Your task to perform on an android device: toggle location history Image 0: 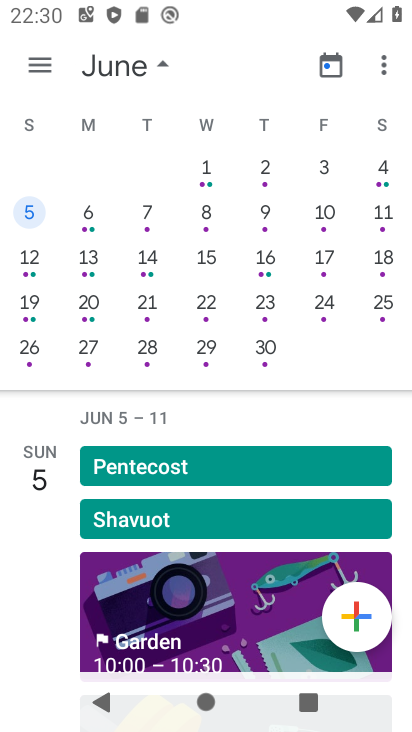
Step 0: press home button
Your task to perform on an android device: toggle location history Image 1: 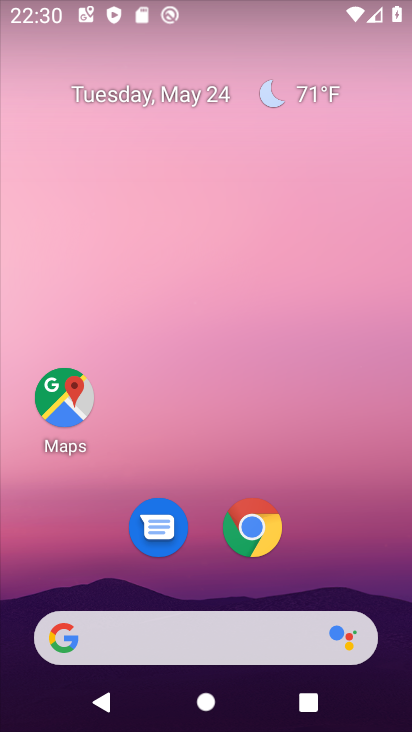
Step 1: drag from (193, 575) to (178, 42)
Your task to perform on an android device: toggle location history Image 2: 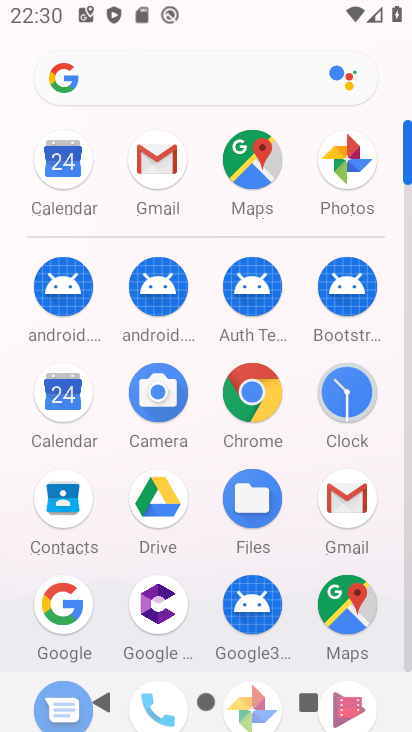
Step 2: drag from (205, 570) to (197, 176)
Your task to perform on an android device: toggle location history Image 3: 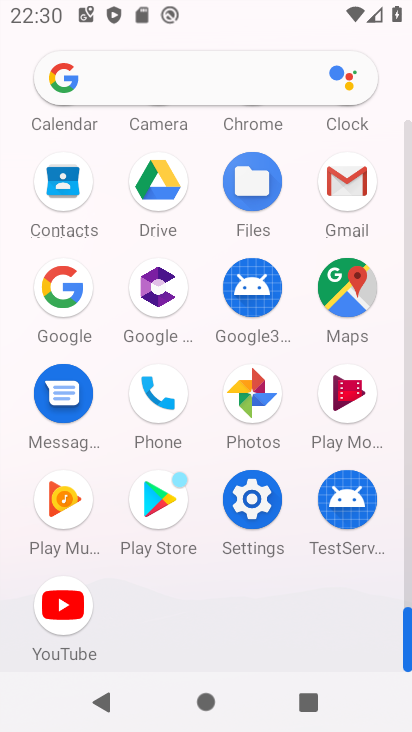
Step 3: click (240, 510)
Your task to perform on an android device: toggle location history Image 4: 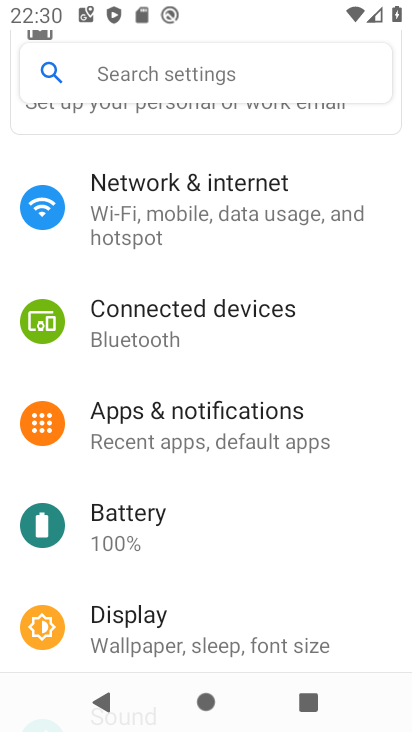
Step 4: drag from (183, 556) to (178, 242)
Your task to perform on an android device: toggle location history Image 5: 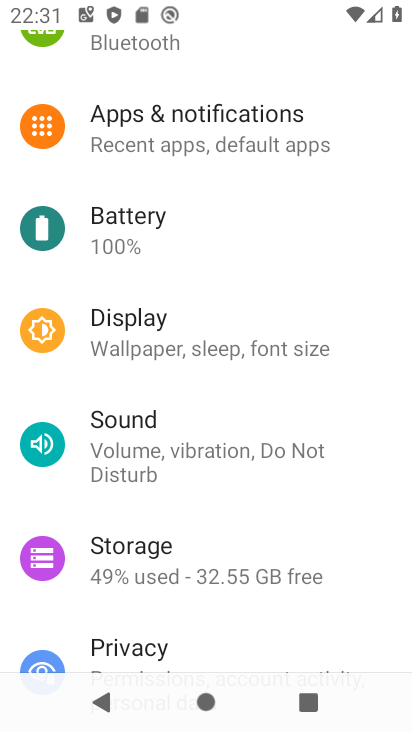
Step 5: drag from (208, 612) to (205, 313)
Your task to perform on an android device: toggle location history Image 6: 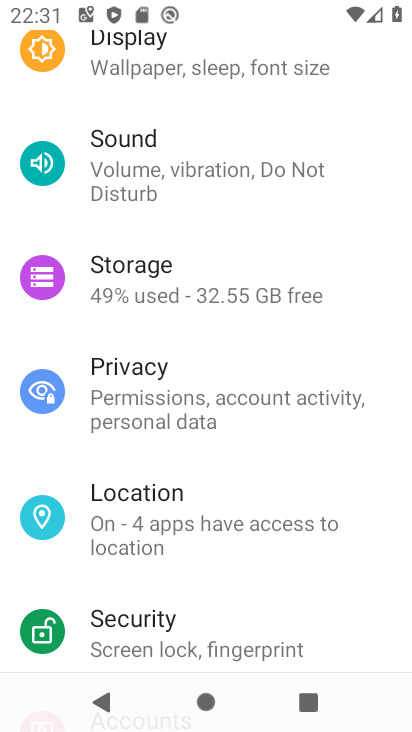
Step 6: drag from (225, 610) to (227, 322)
Your task to perform on an android device: toggle location history Image 7: 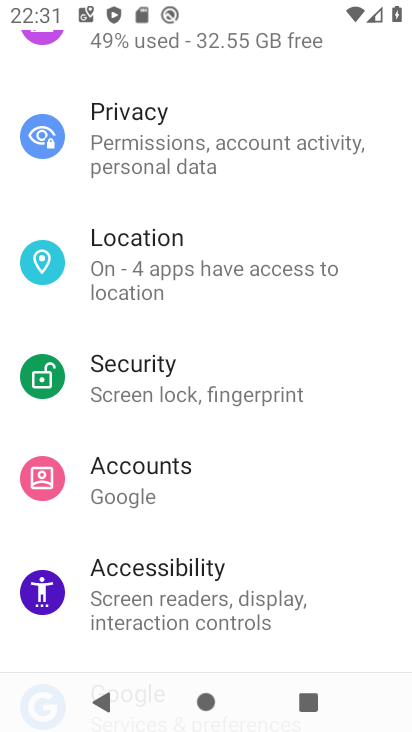
Step 7: drag from (181, 597) to (176, 451)
Your task to perform on an android device: toggle location history Image 8: 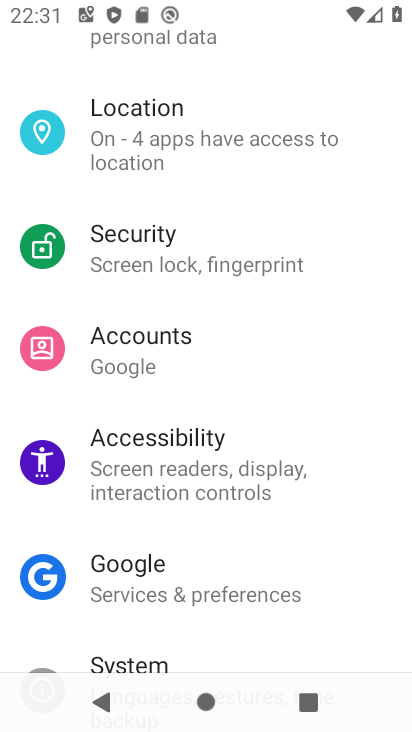
Step 8: click (159, 163)
Your task to perform on an android device: toggle location history Image 9: 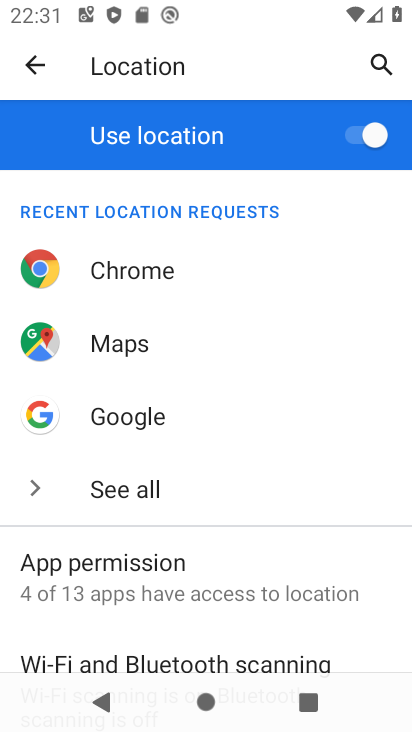
Step 9: drag from (233, 624) to (239, 317)
Your task to perform on an android device: toggle location history Image 10: 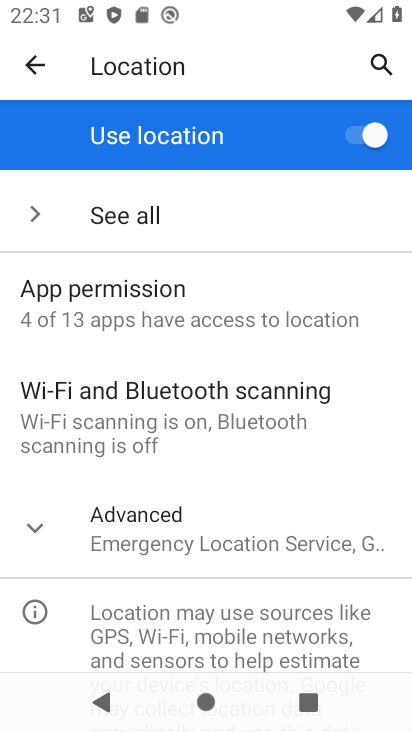
Step 10: click (199, 555)
Your task to perform on an android device: toggle location history Image 11: 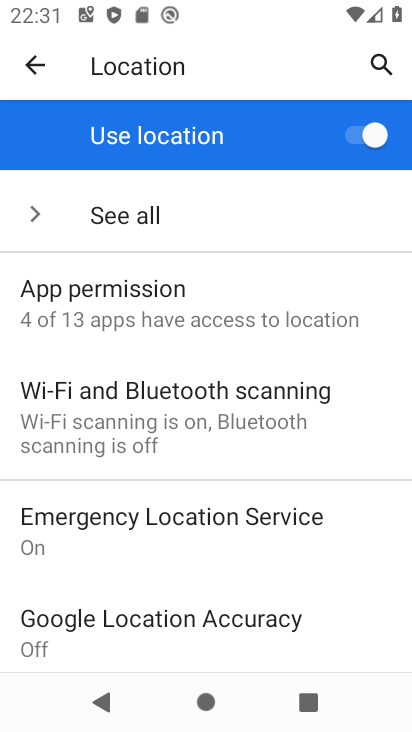
Step 11: drag from (232, 627) to (274, 338)
Your task to perform on an android device: toggle location history Image 12: 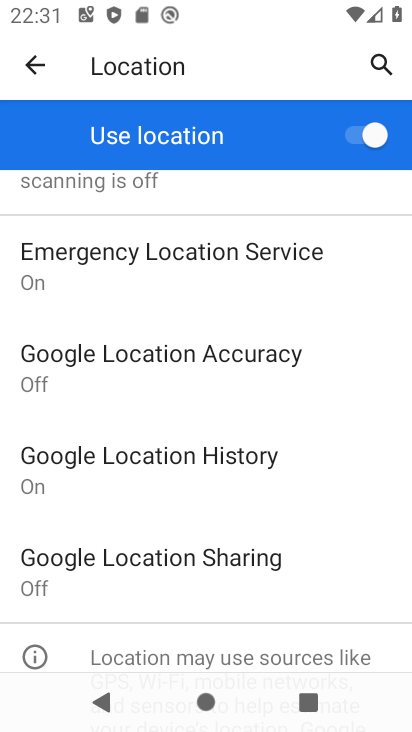
Step 12: click (198, 470)
Your task to perform on an android device: toggle location history Image 13: 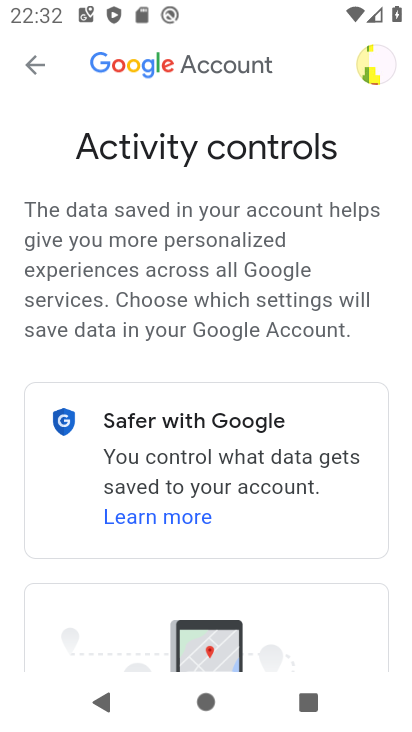
Step 13: drag from (282, 611) to (289, 211)
Your task to perform on an android device: toggle location history Image 14: 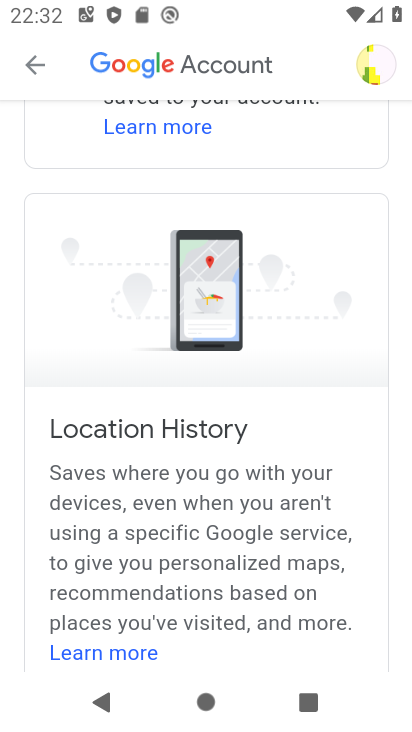
Step 14: drag from (328, 563) to (372, 120)
Your task to perform on an android device: toggle location history Image 15: 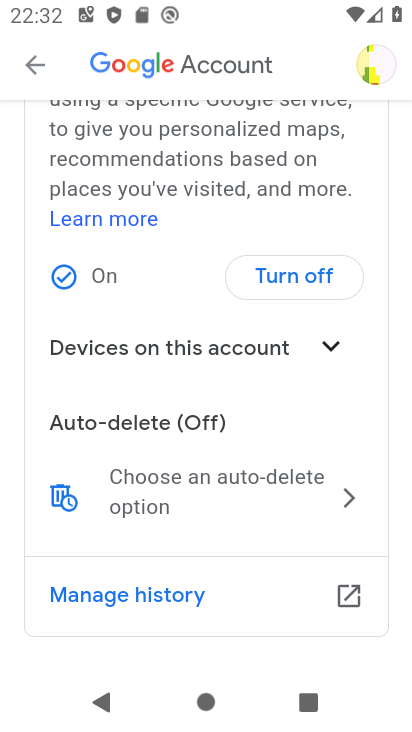
Step 15: click (293, 281)
Your task to perform on an android device: toggle location history Image 16: 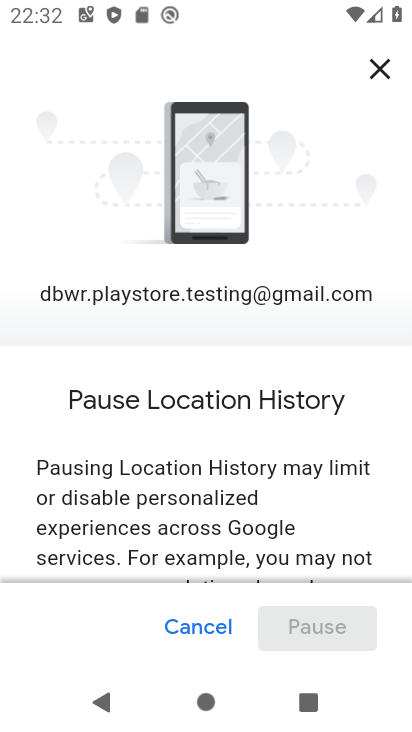
Step 16: drag from (323, 558) to (320, 102)
Your task to perform on an android device: toggle location history Image 17: 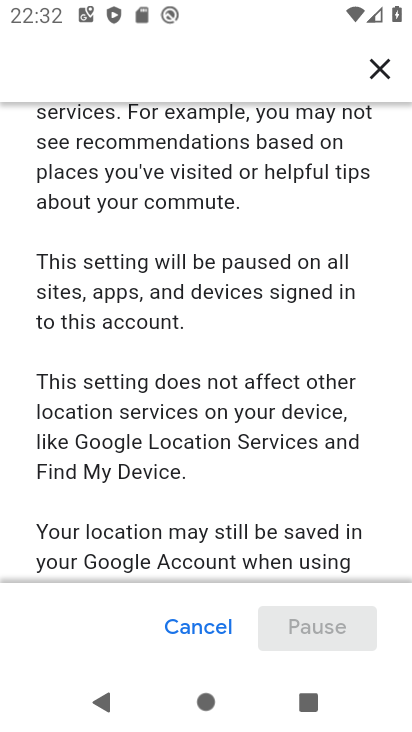
Step 17: drag from (244, 492) to (243, 14)
Your task to perform on an android device: toggle location history Image 18: 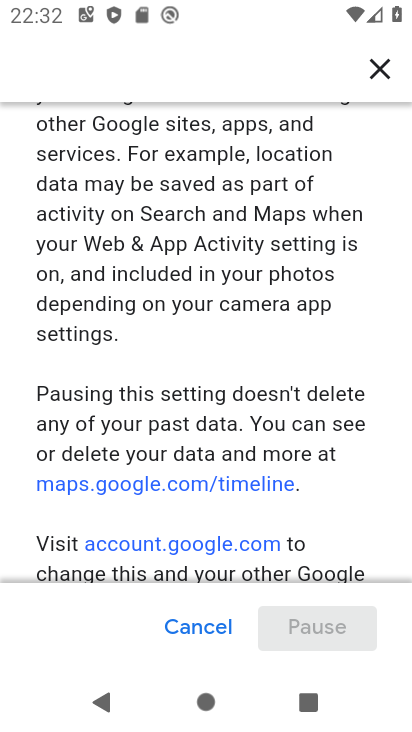
Step 18: drag from (215, 510) to (212, 8)
Your task to perform on an android device: toggle location history Image 19: 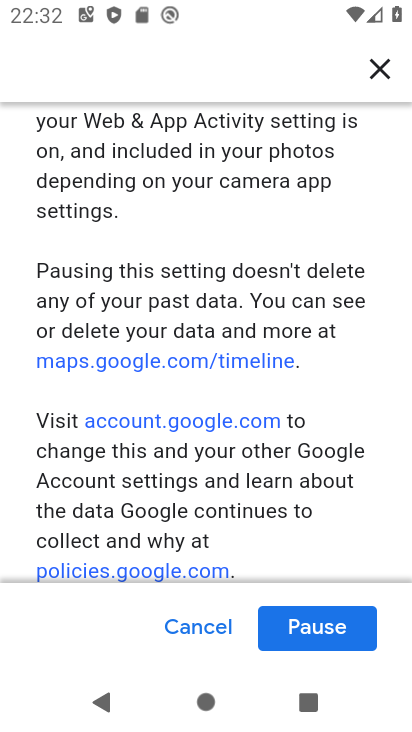
Step 19: click (308, 617)
Your task to perform on an android device: toggle location history Image 20: 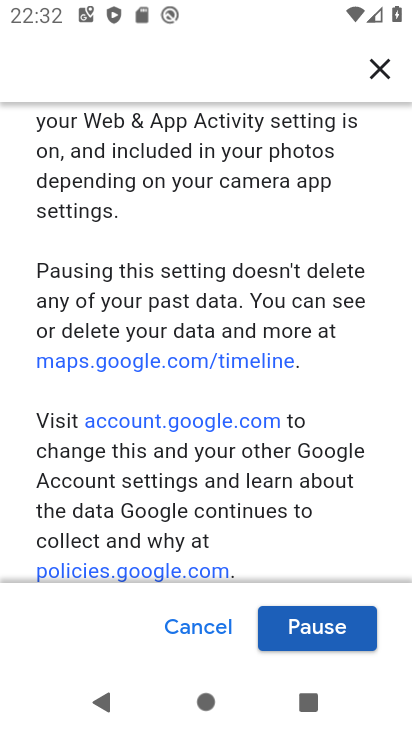
Step 20: click (312, 626)
Your task to perform on an android device: toggle location history Image 21: 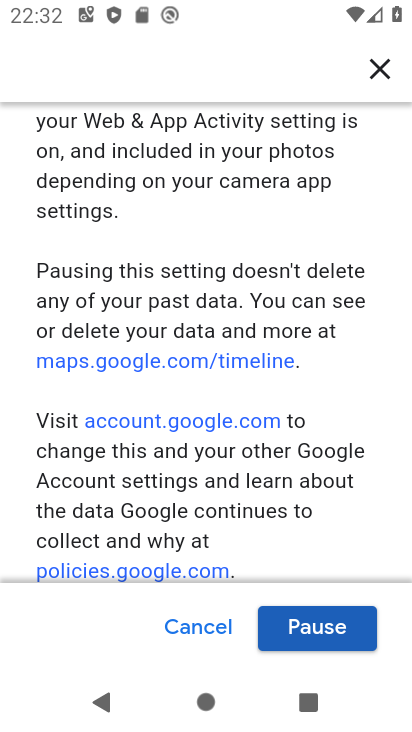
Step 21: click (312, 626)
Your task to perform on an android device: toggle location history Image 22: 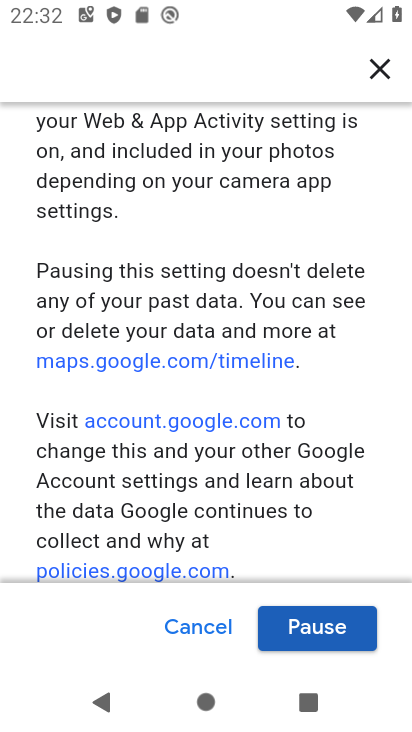
Step 22: click (310, 623)
Your task to perform on an android device: toggle location history Image 23: 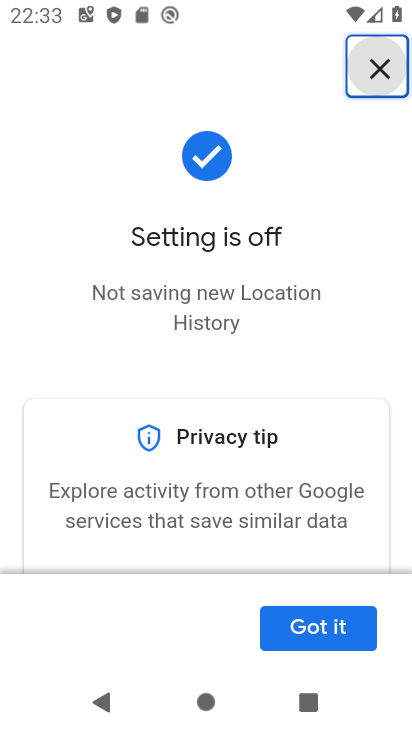
Step 23: task complete